Your task to perform on an android device: Open the phone app and click the voicemail tab. Image 0: 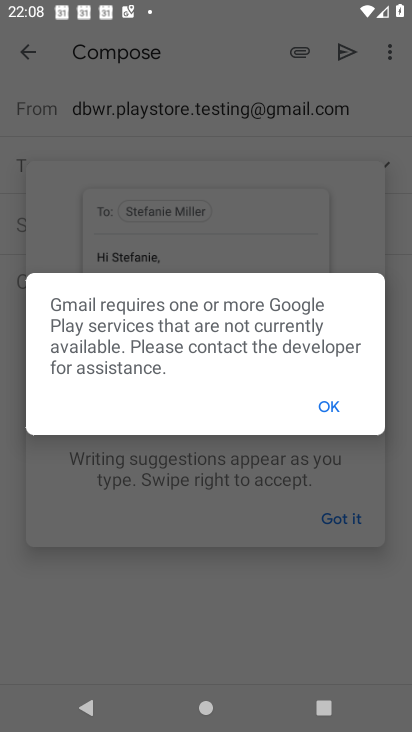
Step 0: press home button
Your task to perform on an android device: Open the phone app and click the voicemail tab. Image 1: 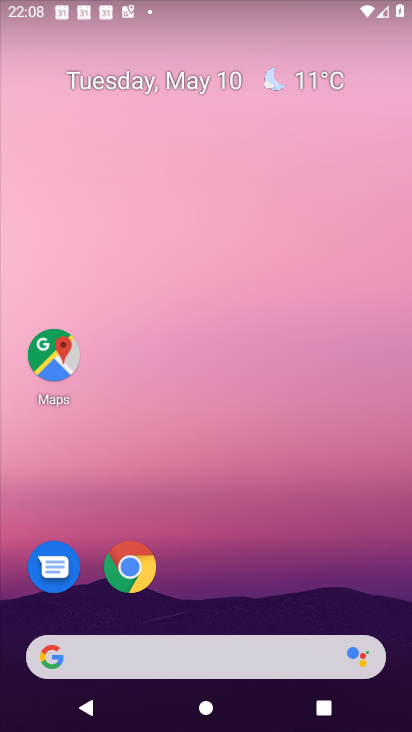
Step 1: drag from (139, 631) to (178, 287)
Your task to perform on an android device: Open the phone app and click the voicemail tab. Image 2: 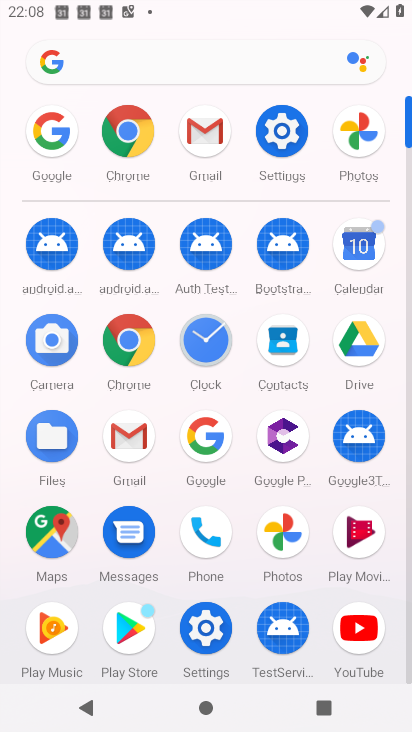
Step 2: click (194, 535)
Your task to perform on an android device: Open the phone app and click the voicemail tab. Image 3: 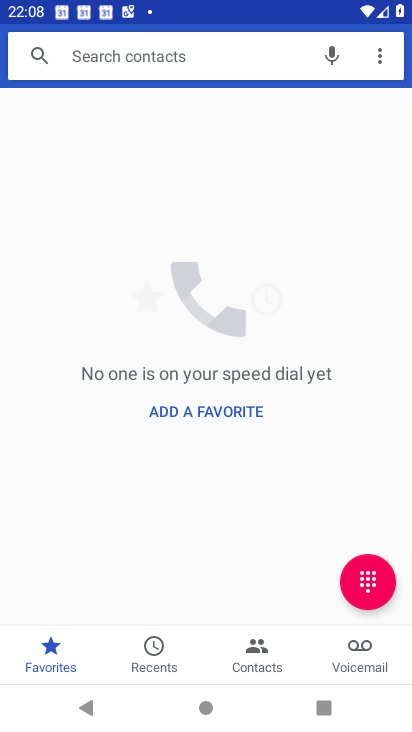
Step 3: click (355, 649)
Your task to perform on an android device: Open the phone app and click the voicemail tab. Image 4: 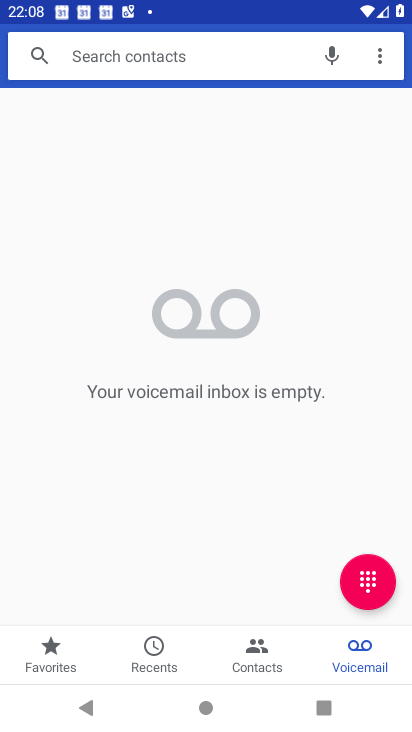
Step 4: task complete